Your task to perform on an android device: turn off smart reply in the gmail app Image 0: 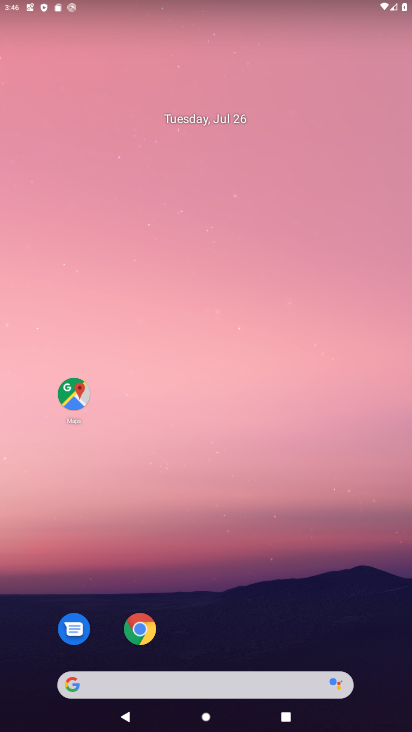
Step 0: drag from (285, 633) to (244, 15)
Your task to perform on an android device: turn off smart reply in the gmail app Image 1: 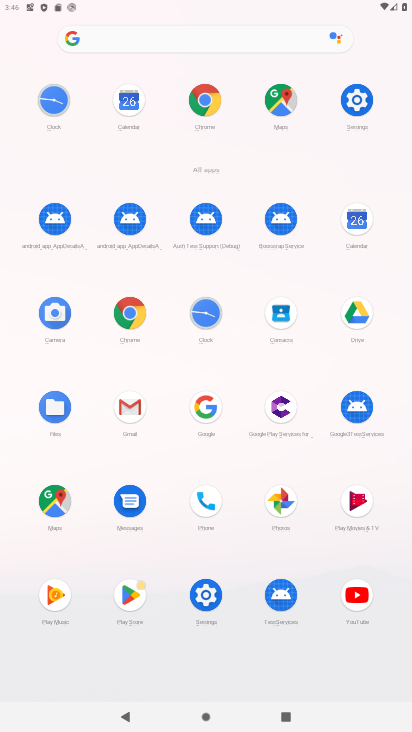
Step 1: click (127, 412)
Your task to perform on an android device: turn off smart reply in the gmail app Image 2: 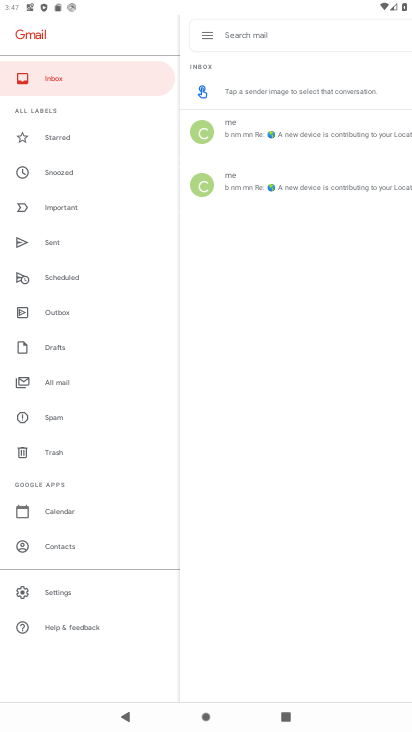
Step 2: click (77, 598)
Your task to perform on an android device: turn off smart reply in the gmail app Image 3: 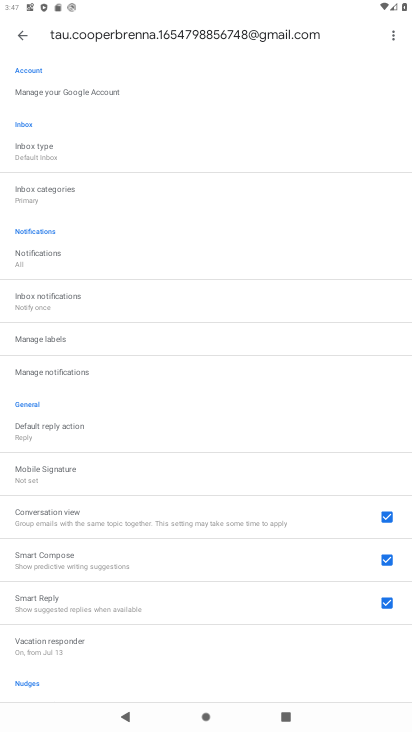
Step 3: click (389, 601)
Your task to perform on an android device: turn off smart reply in the gmail app Image 4: 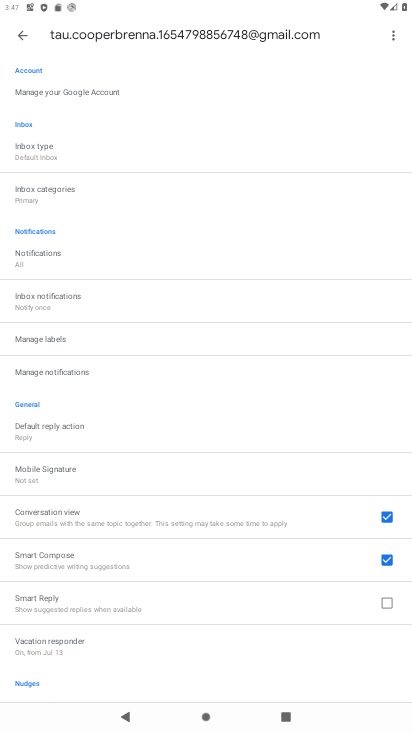
Step 4: task complete